Your task to perform on an android device: Check the news Image 0: 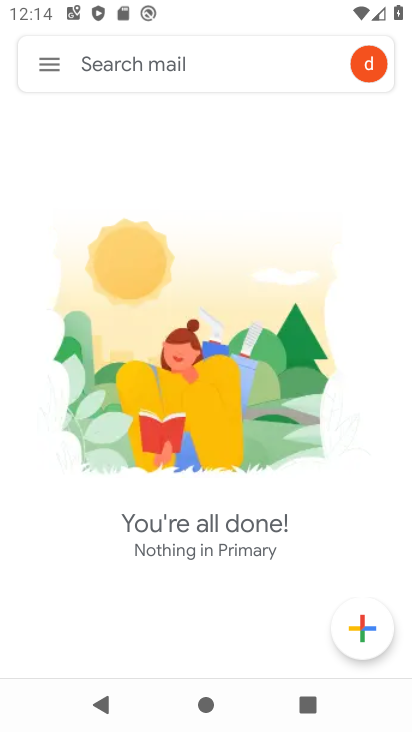
Step 0: press home button
Your task to perform on an android device: Check the news Image 1: 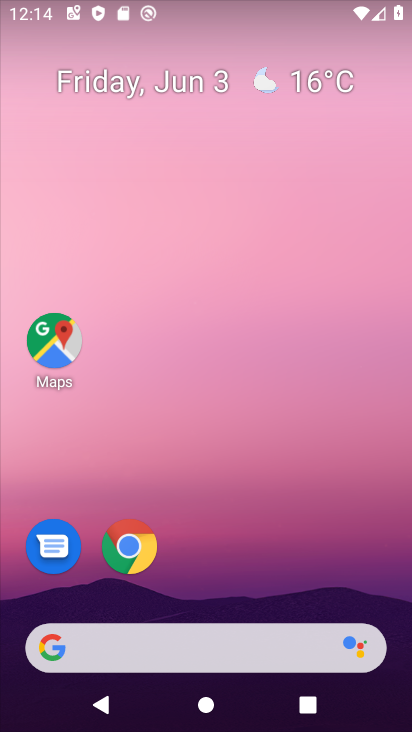
Step 1: click (241, 632)
Your task to perform on an android device: Check the news Image 2: 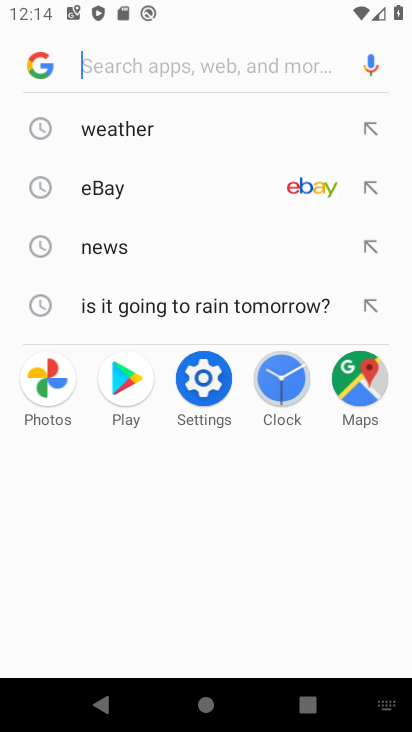
Step 2: click (97, 250)
Your task to perform on an android device: Check the news Image 3: 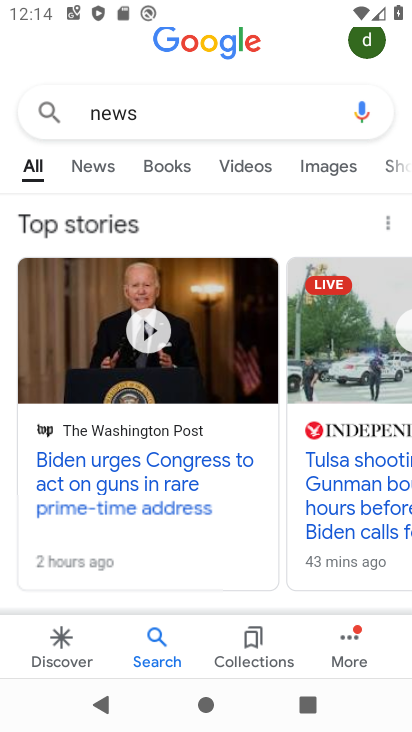
Step 3: drag from (262, 546) to (207, 76)
Your task to perform on an android device: Check the news Image 4: 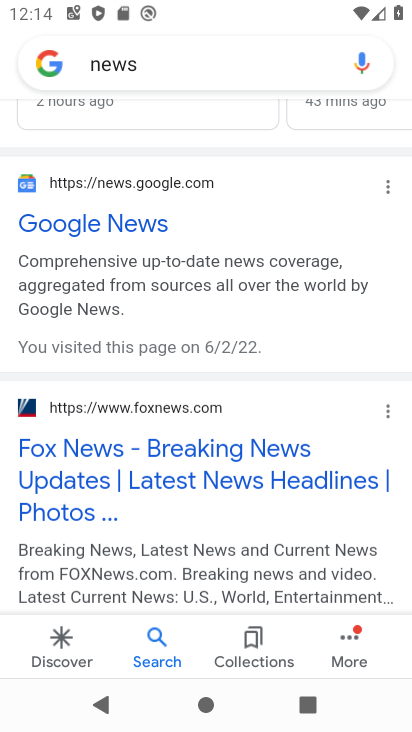
Step 4: click (108, 234)
Your task to perform on an android device: Check the news Image 5: 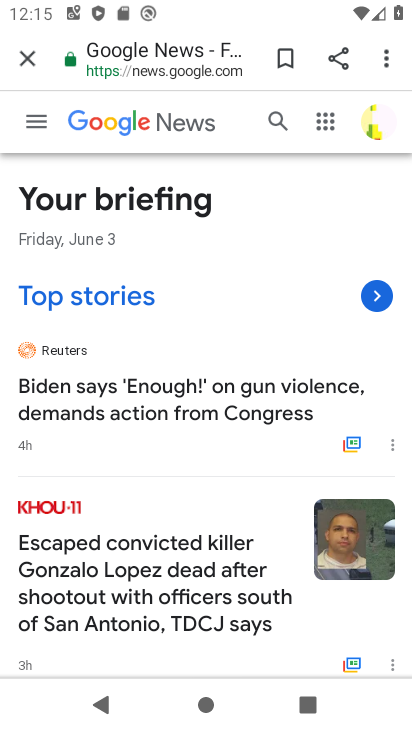
Step 5: task complete